Your task to perform on an android device: Go to Yahoo.com Image 0: 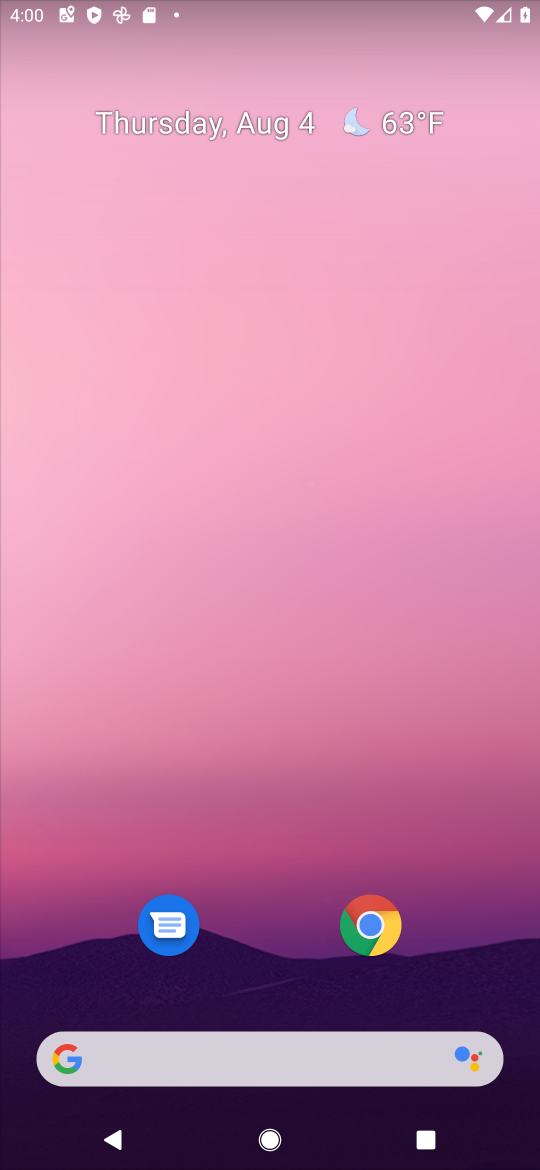
Step 0: click (356, 933)
Your task to perform on an android device: Go to Yahoo.com Image 1: 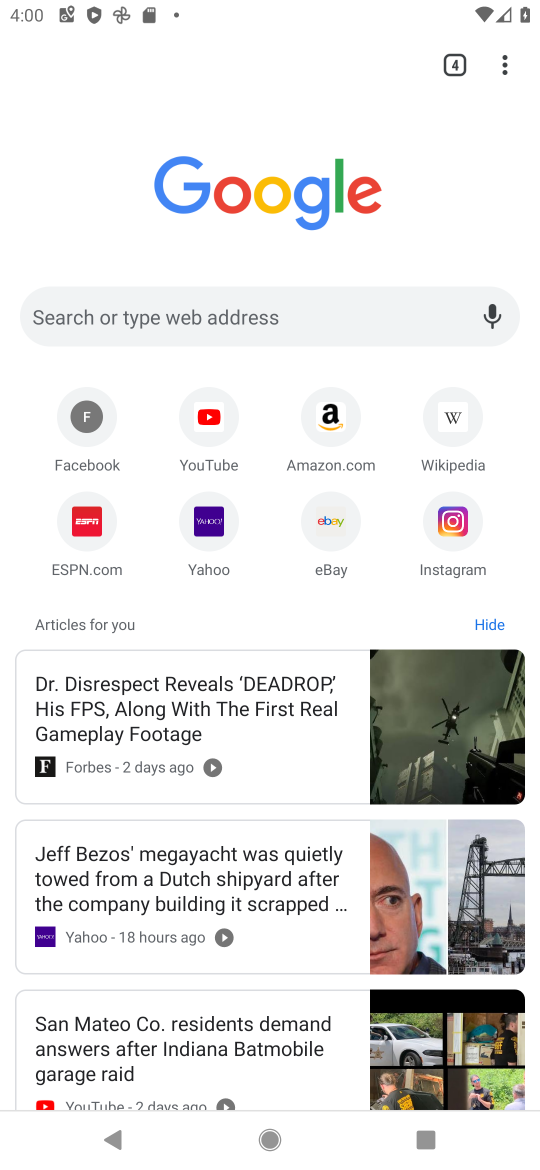
Step 1: click (198, 536)
Your task to perform on an android device: Go to Yahoo.com Image 2: 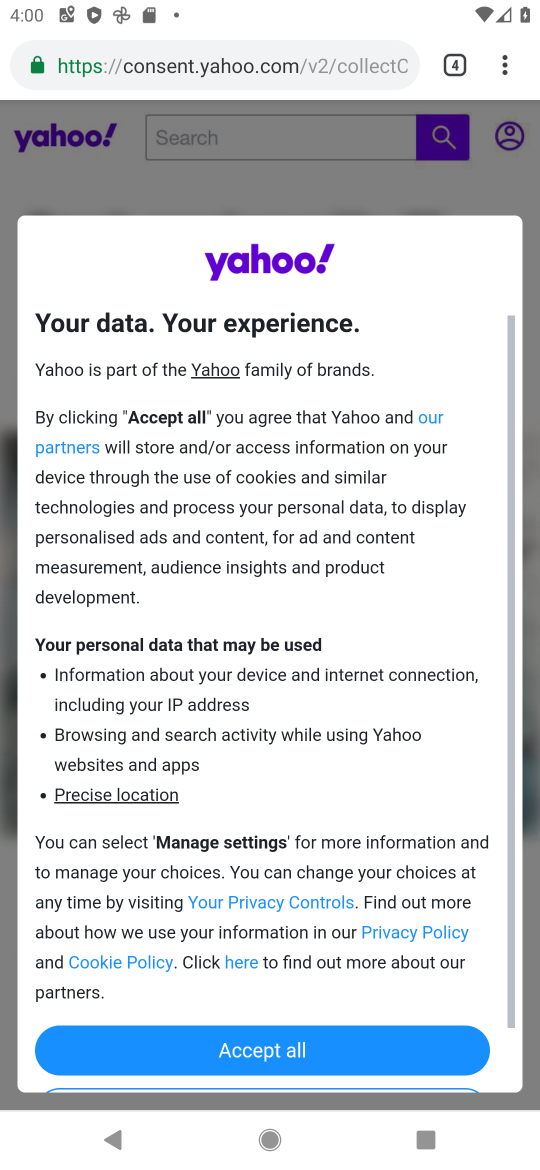
Step 2: click (294, 1056)
Your task to perform on an android device: Go to Yahoo.com Image 3: 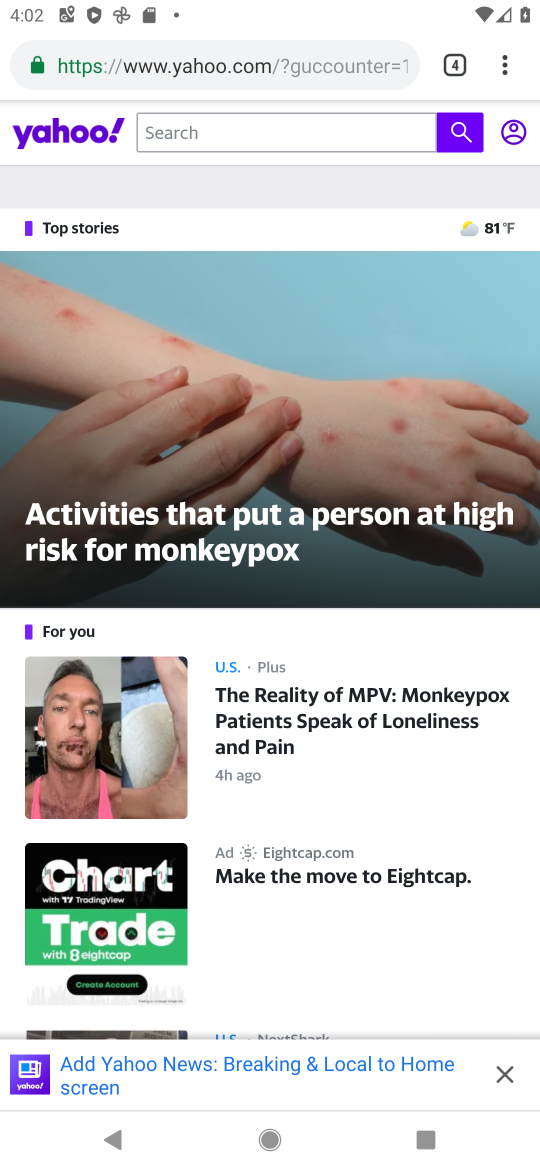
Step 3: task complete